Your task to perform on an android device: Open settings Image 0: 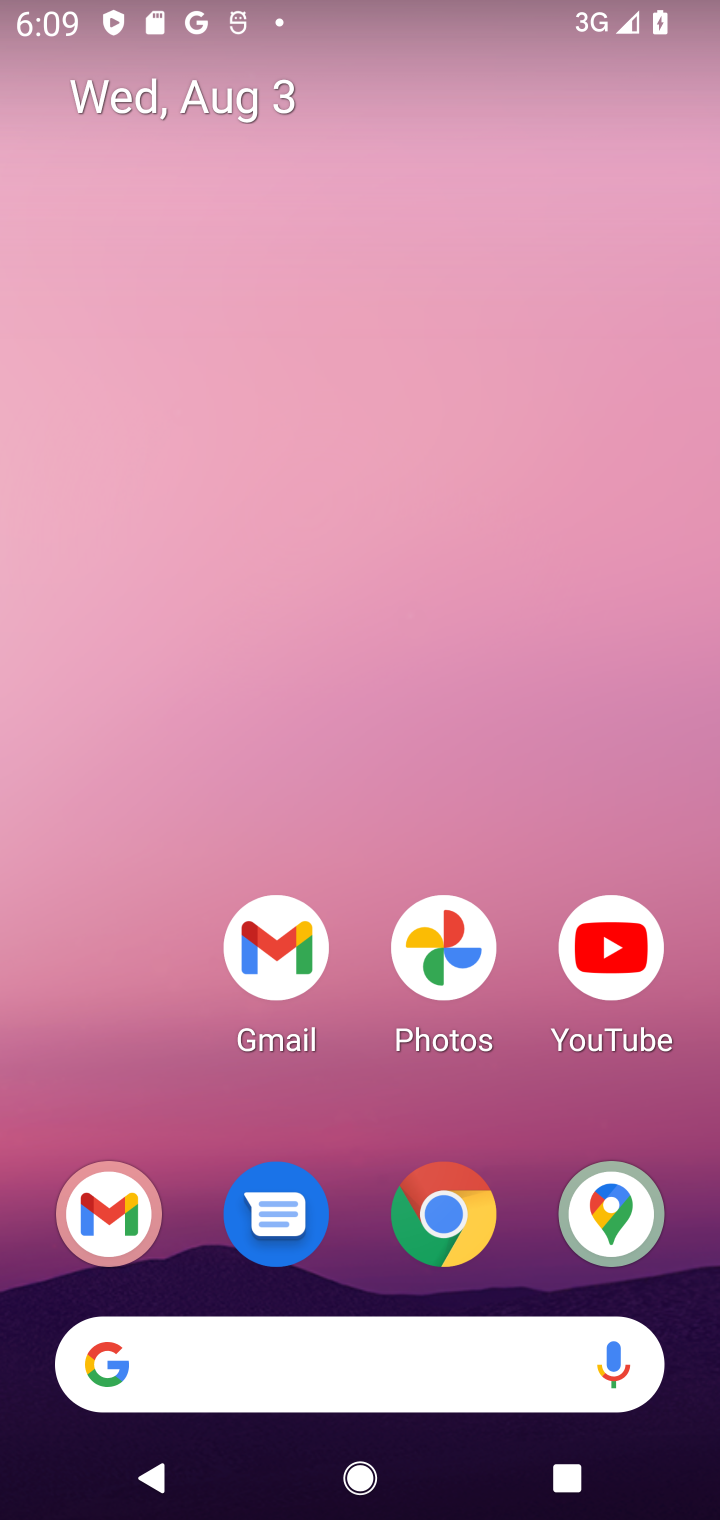
Step 0: drag from (374, 1130) to (426, 2)
Your task to perform on an android device: Open settings Image 1: 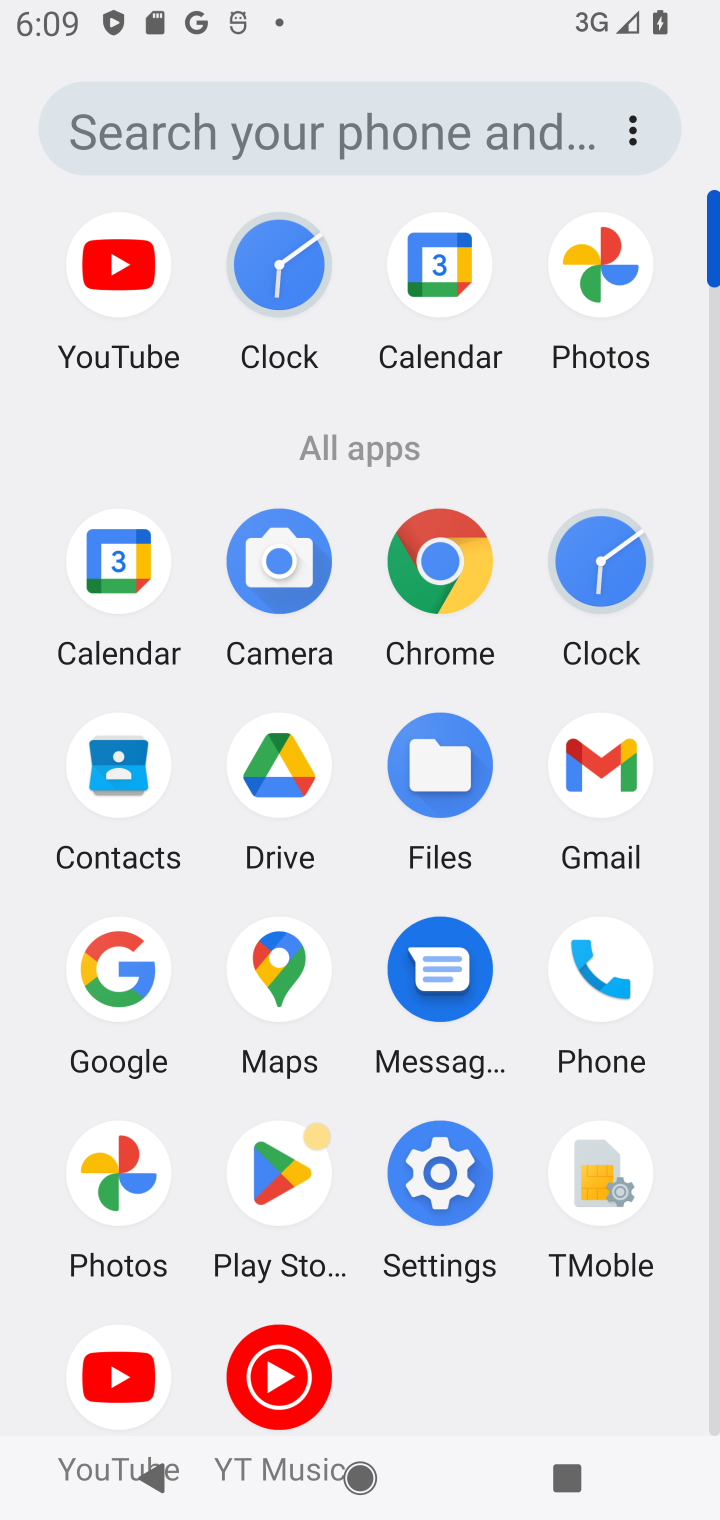
Step 1: click (445, 1170)
Your task to perform on an android device: Open settings Image 2: 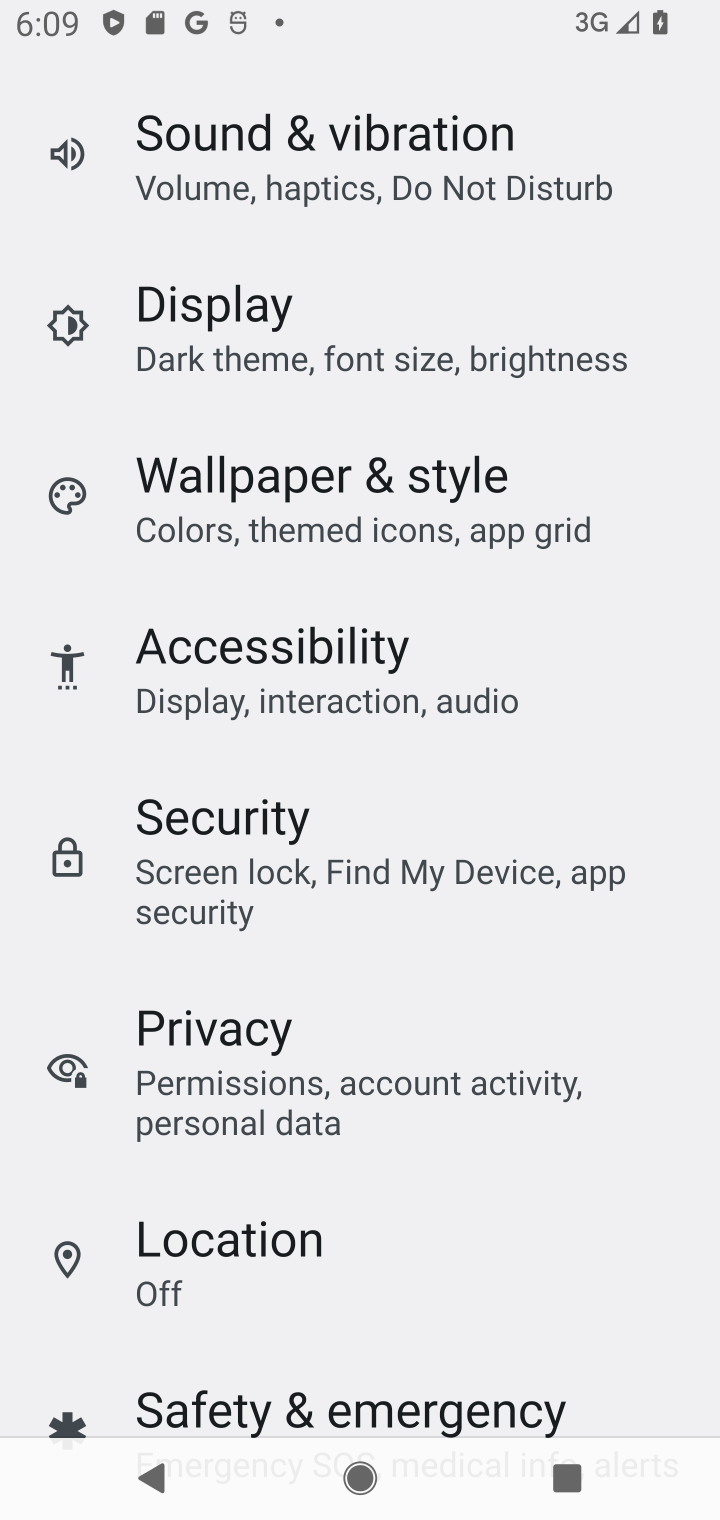
Step 2: task complete